Your task to perform on an android device: open app "NewsBreak: Local News & Alerts" (install if not already installed) and go to login screen Image 0: 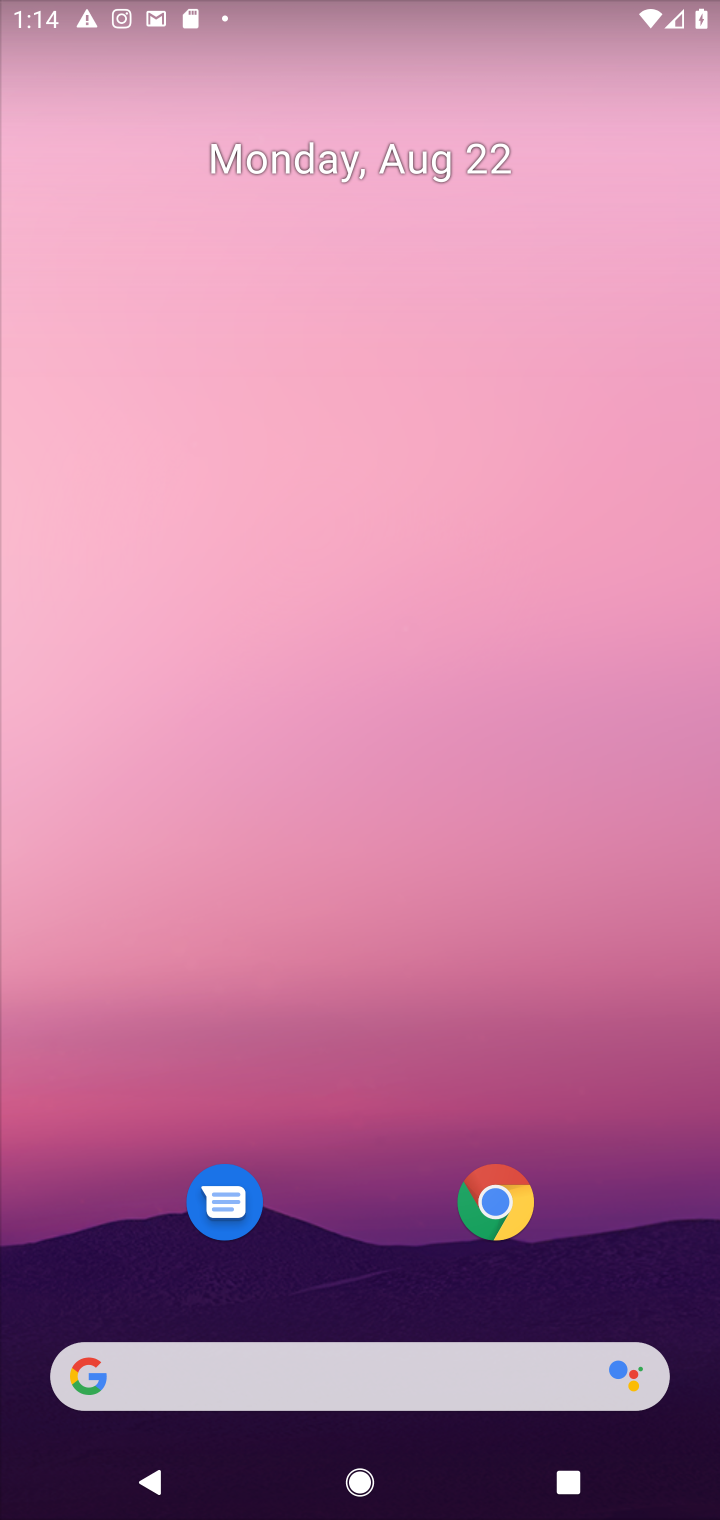
Step 0: drag from (327, 1032) to (341, 423)
Your task to perform on an android device: open app "NewsBreak: Local News & Alerts" (install if not already installed) and go to login screen Image 1: 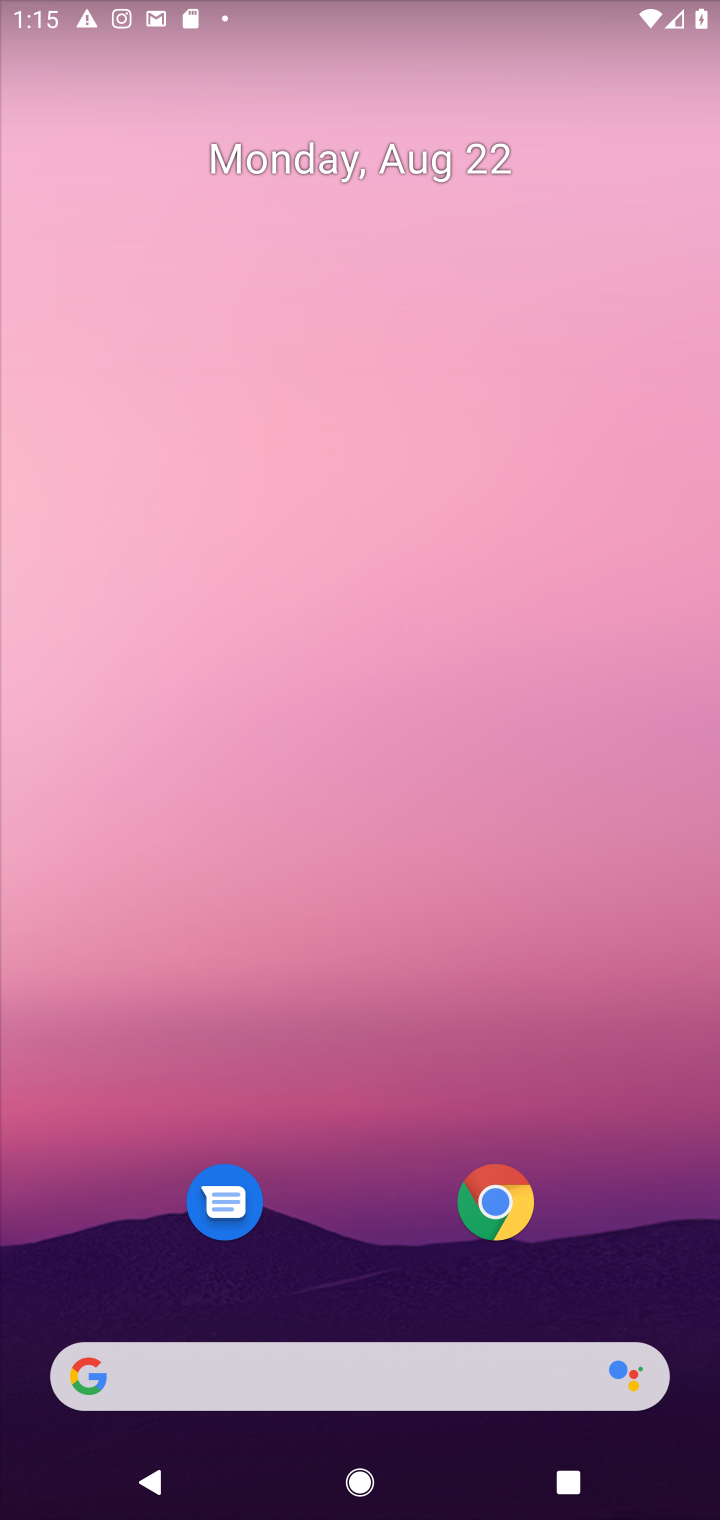
Step 1: drag from (390, 1077) to (425, 50)
Your task to perform on an android device: open app "NewsBreak: Local News & Alerts" (install if not already installed) and go to login screen Image 2: 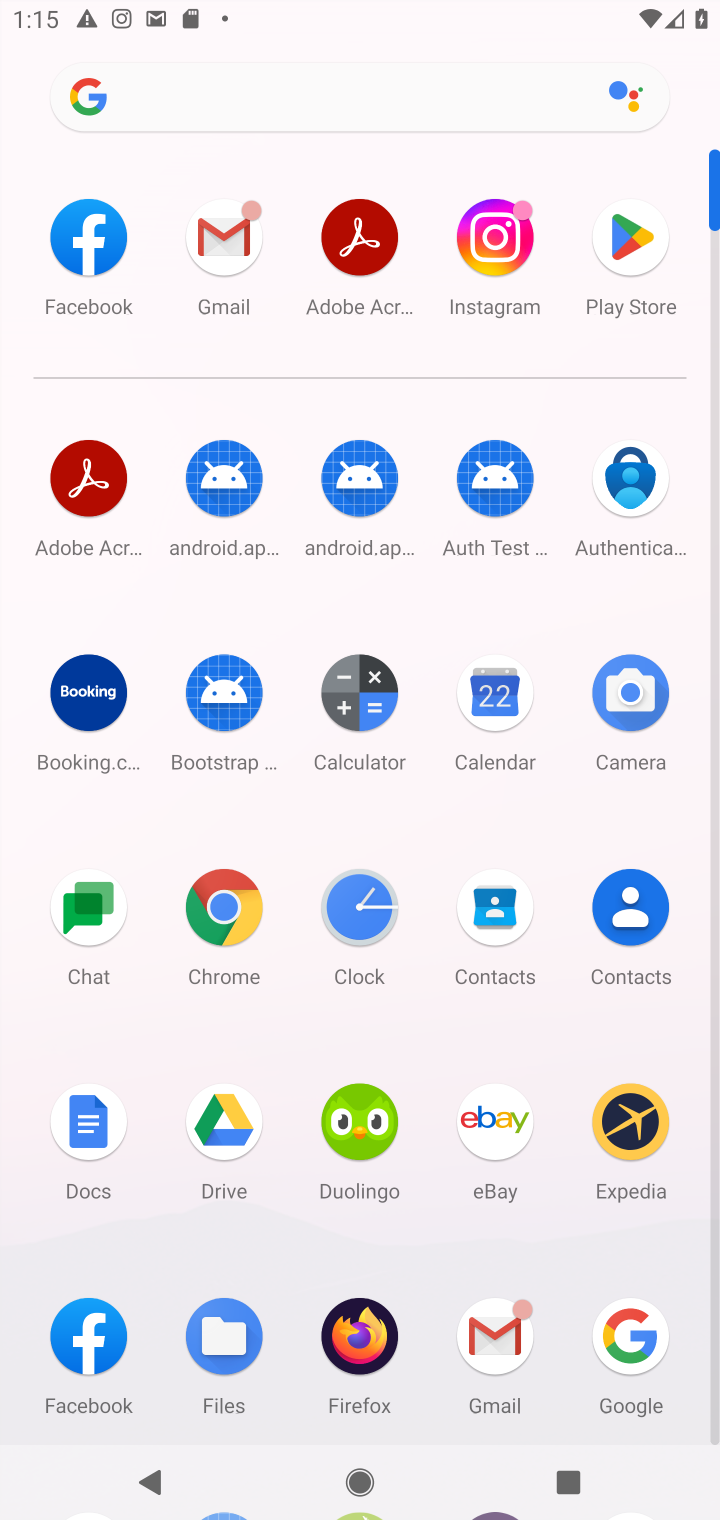
Step 2: drag from (287, 1243) to (345, 707)
Your task to perform on an android device: open app "NewsBreak: Local News & Alerts" (install if not already installed) and go to login screen Image 3: 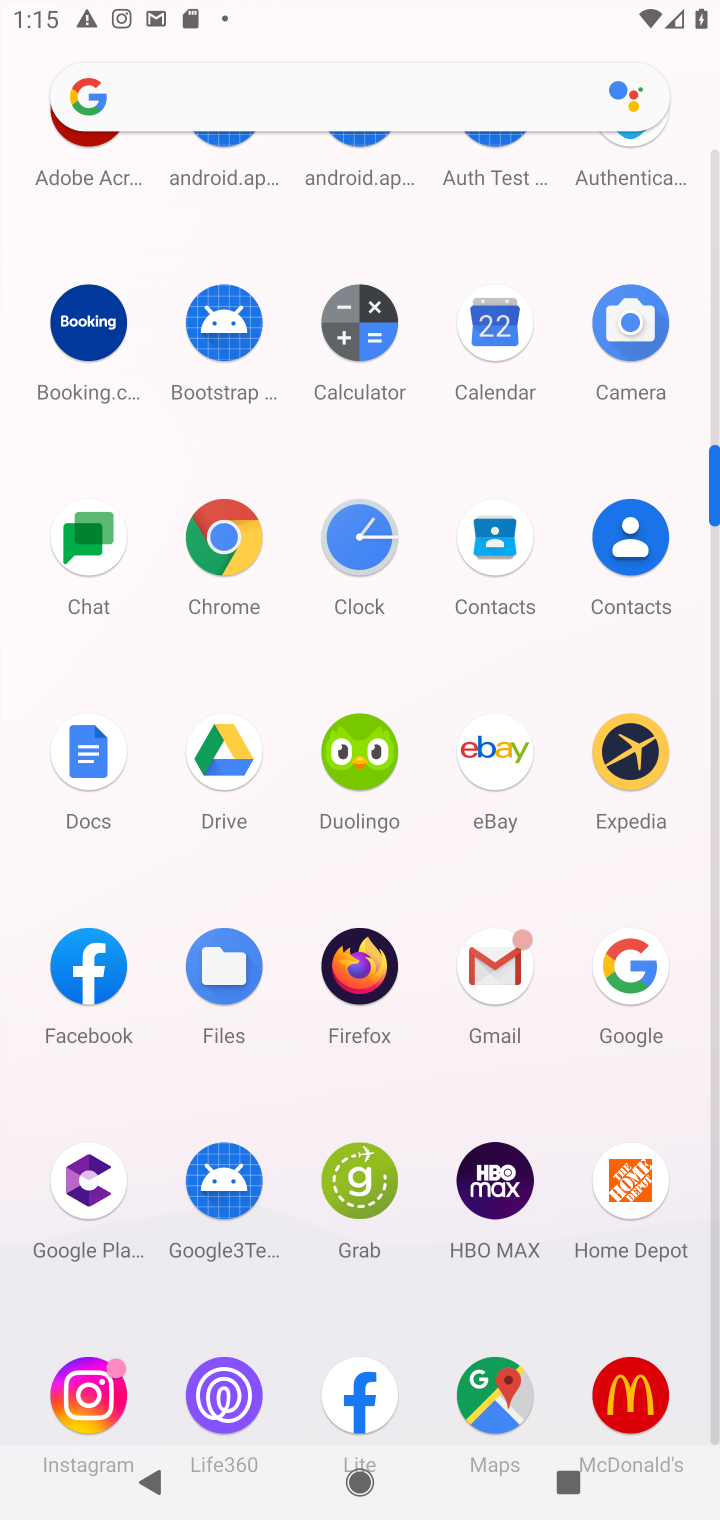
Step 3: drag from (373, 475) to (361, 1026)
Your task to perform on an android device: open app "NewsBreak: Local News & Alerts" (install if not already installed) and go to login screen Image 4: 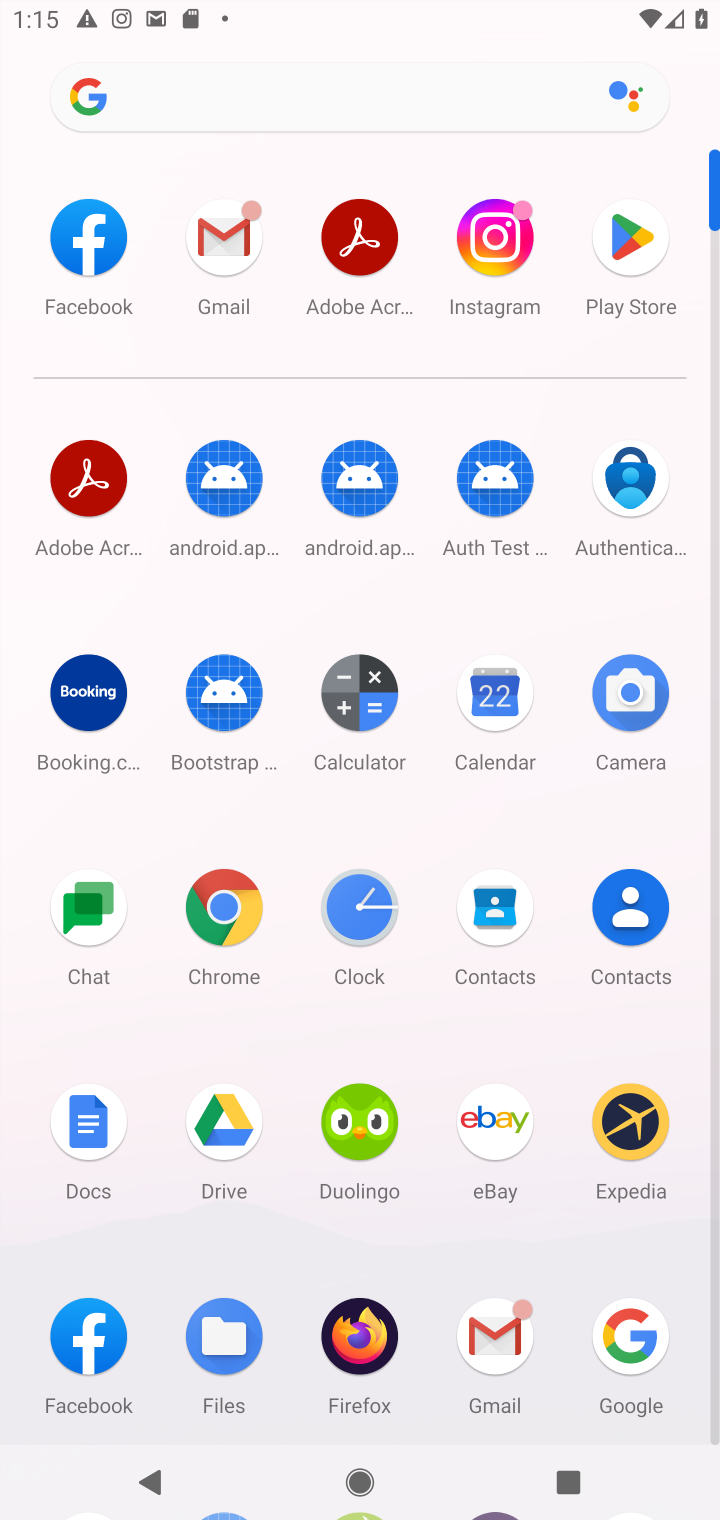
Step 4: click (622, 239)
Your task to perform on an android device: open app "NewsBreak: Local News & Alerts" (install if not already installed) and go to login screen Image 5: 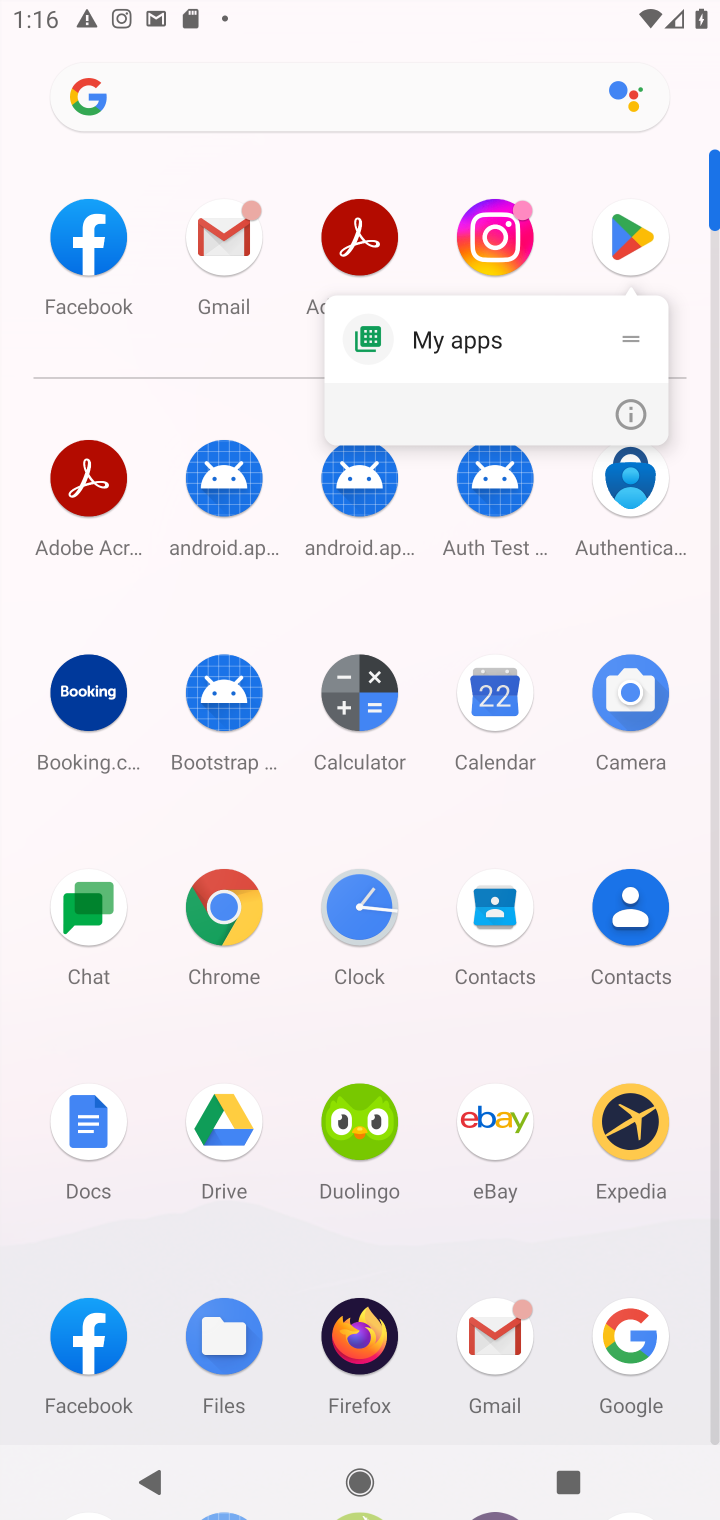
Step 5: click (628, 239)
Your task to perform on an android device: open app "NewsBreak: Local News & Alerts" (install if not already installed) and go to login screen Image 6: 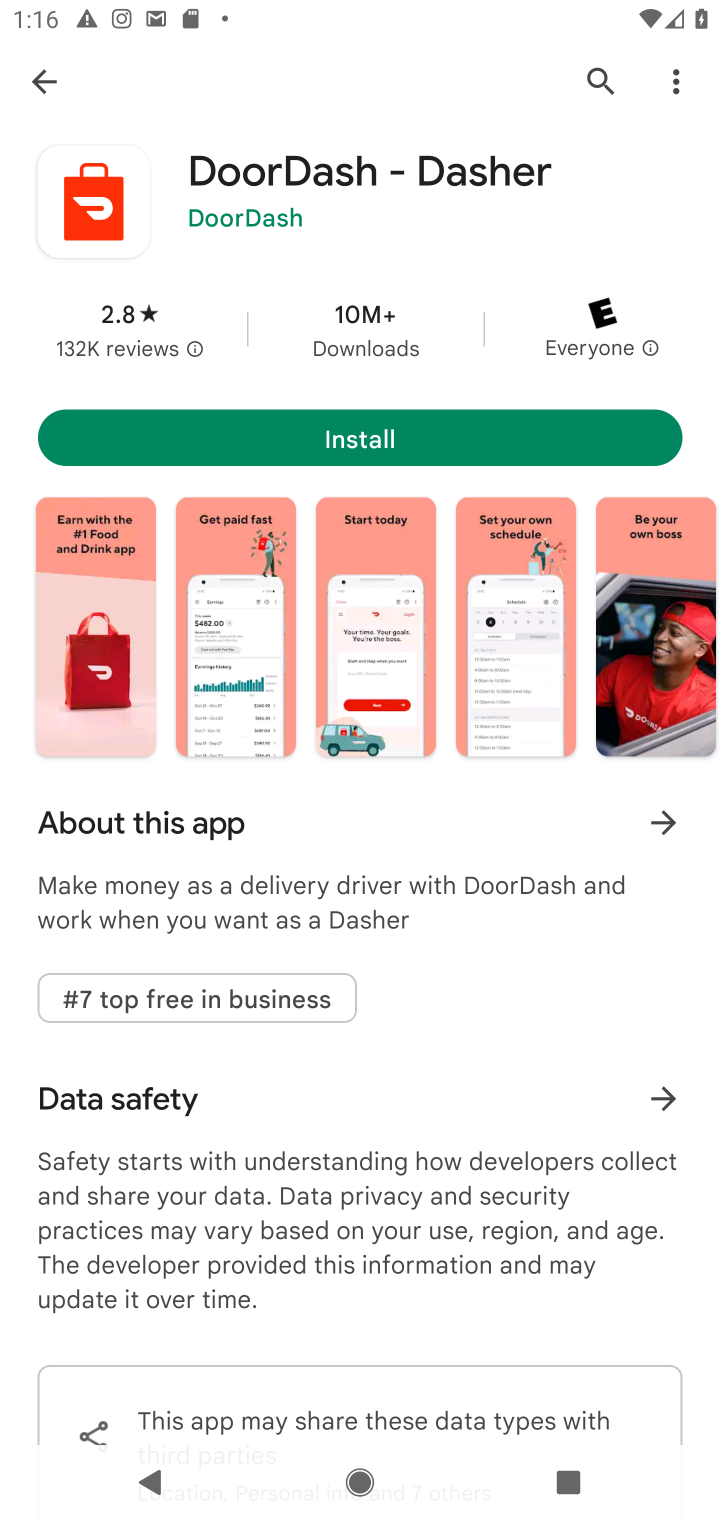
Step 6: click (598, 75)
Your task to perform on an android device: open app "NewsBreak: Local News & Alerts" (install if not already installed) and go to login screen Image 7: 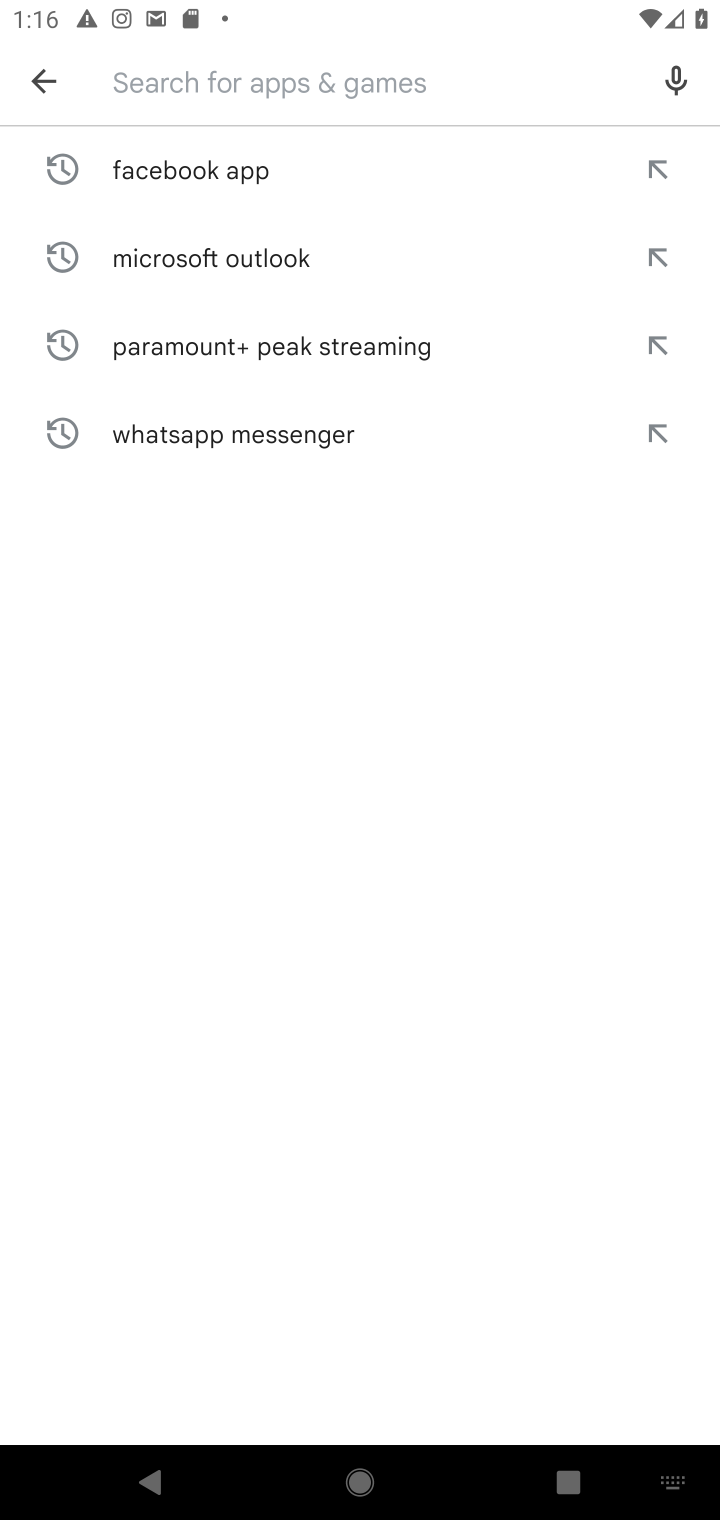
Step 7: type "NewsBreak: Local News & Alerts"
Your task to perform on an android device: open app "NewsBreak: Local News & Alerts" (install if not already installed) and go to login screen Image 8: 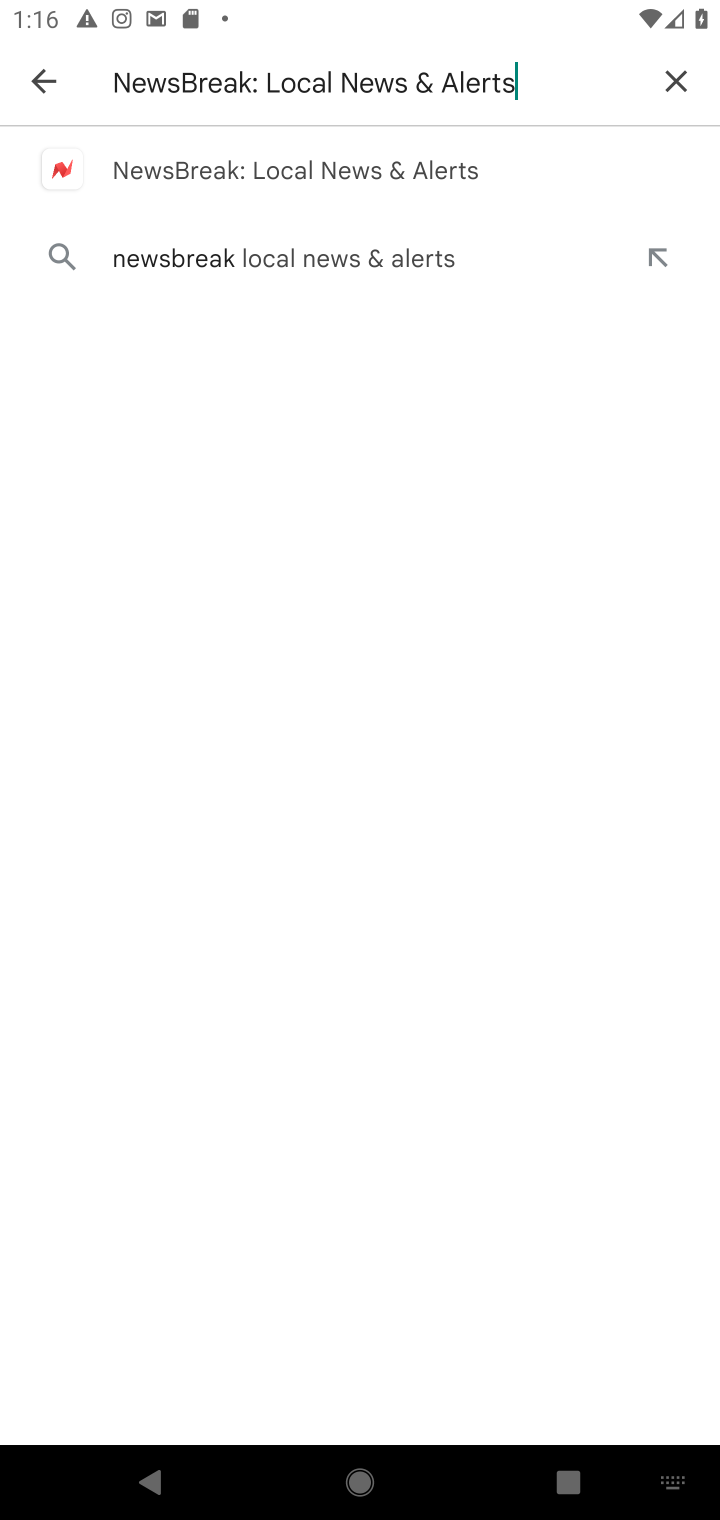
Step 8: click (330, 174)
Your task to perform on an android device: open app "NewsBreak: Local News & Alerts" (install if not already installed) and go to login screen Image 9: 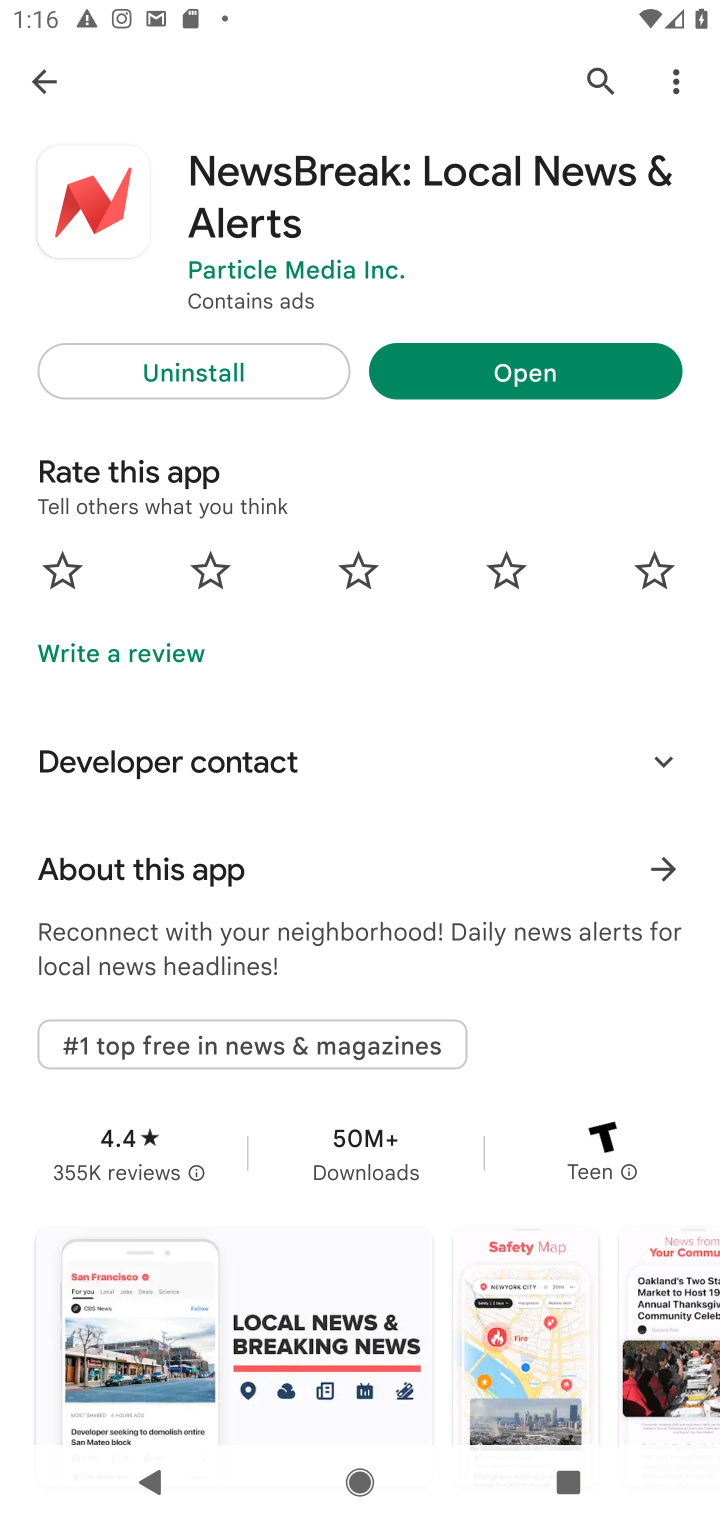
Step 9: click (554, 381)
Your task to perform on an android device: open app "NewsBreak: Local News & Alerts" (install if not already installed) and go to login screen Image 10: 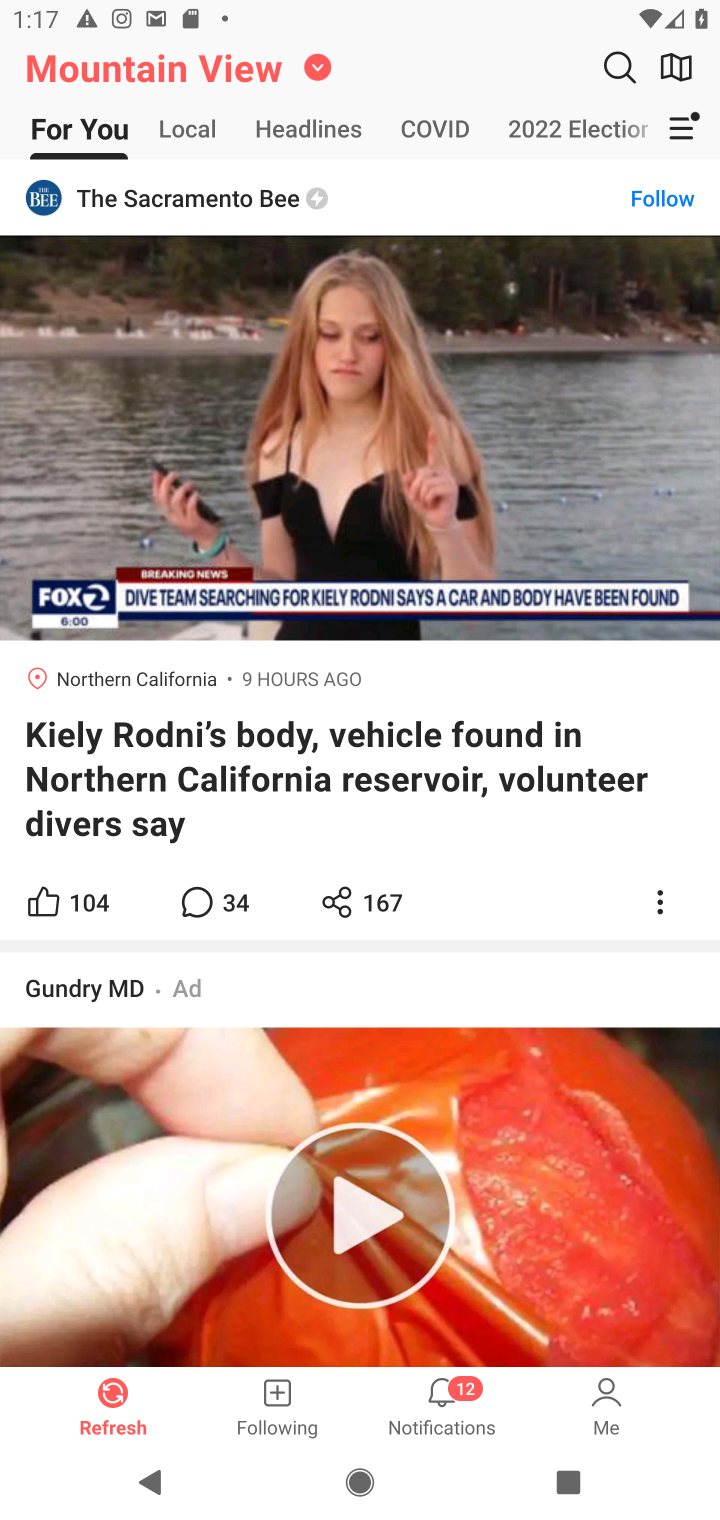
Step 10: click (601, 1396)
Your task to perform on an android device: open app "NewsBreak: Local News & Alerts" (install if not already installed) and go to login screen Image 11: 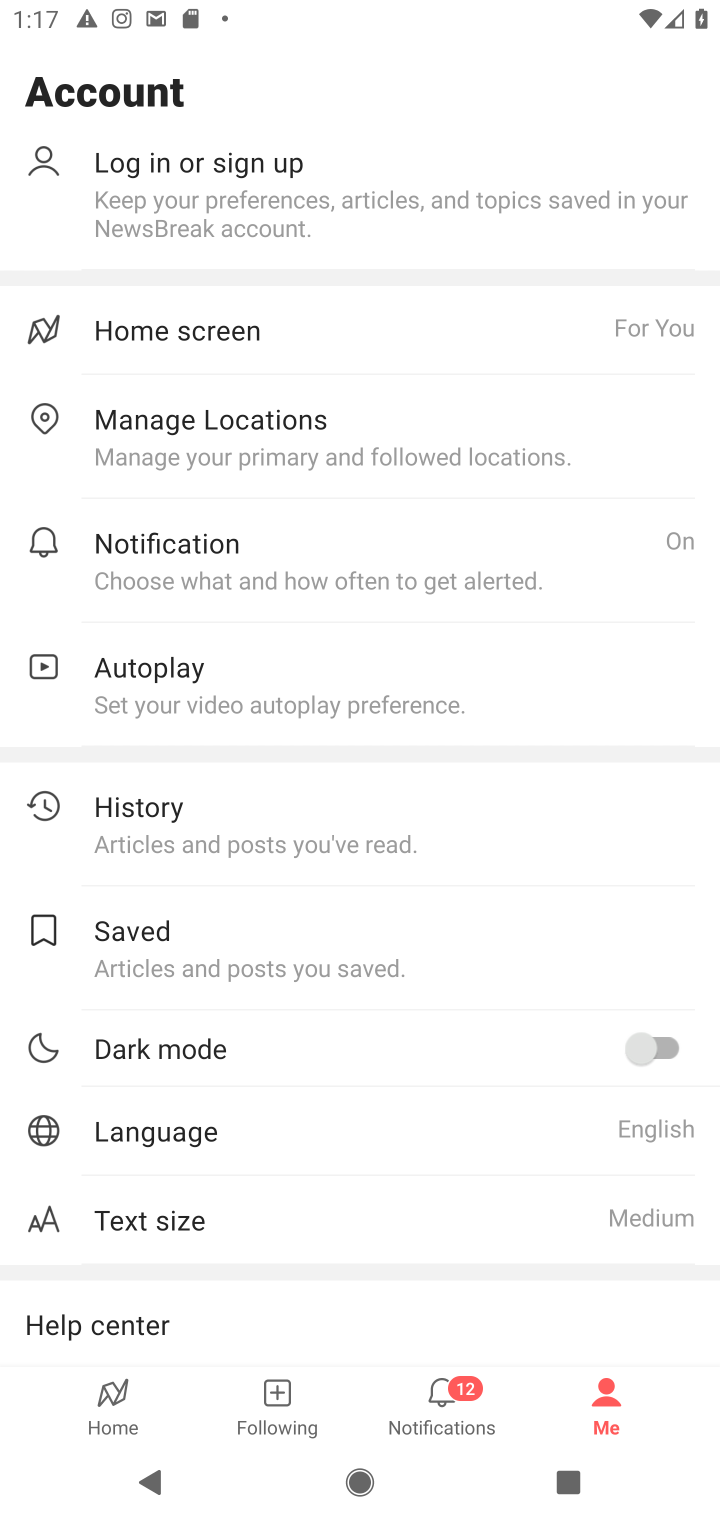
Step 11: click (294, 187)
Your task to perform on an android device: open app "NewsBreak: Local News & Alerts" (install if not already installed) and go to login screen Image 12: 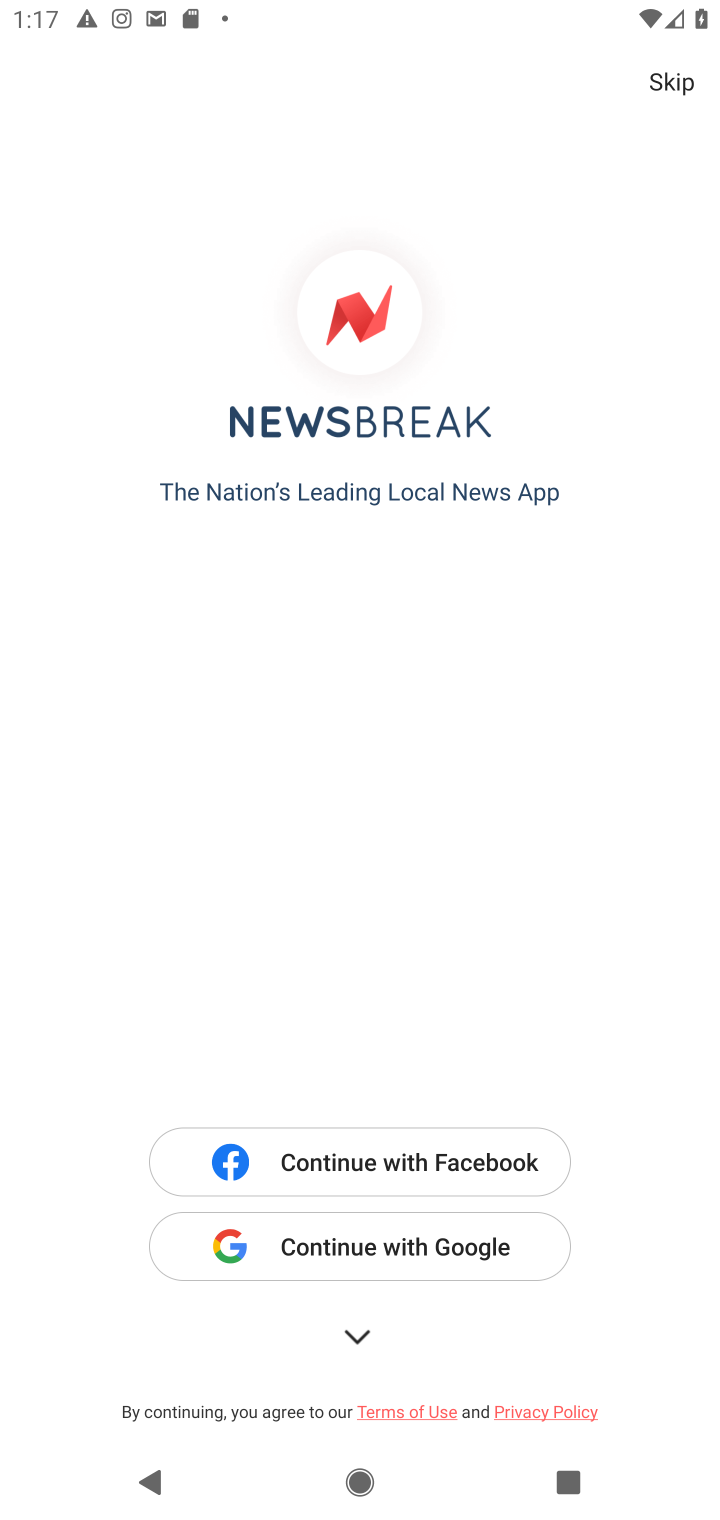
Step 12: task complete